Your task to perform on an android device: check google app version Image 0: 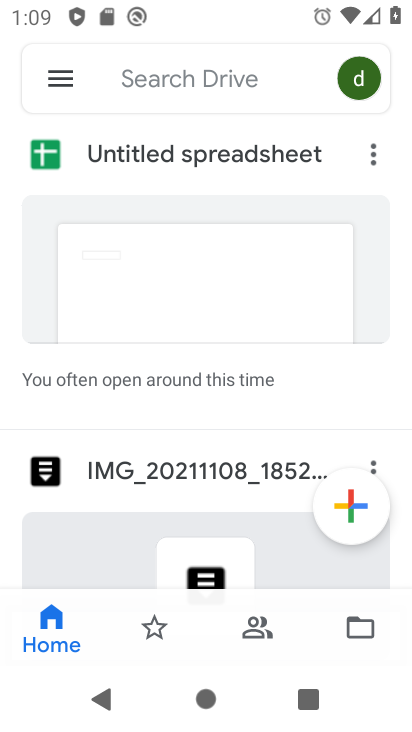
Step 0: press home button
Your task to perform on an android device: check google app version Image 1: 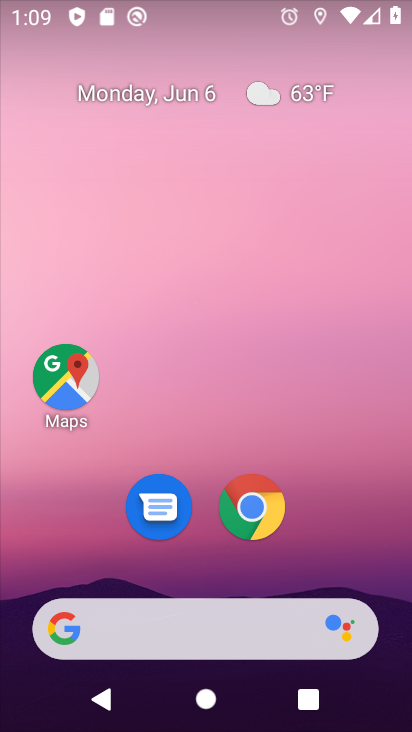
Step 1: click (249, 636)
Your task to perform on an android device: check google app version Image 2: 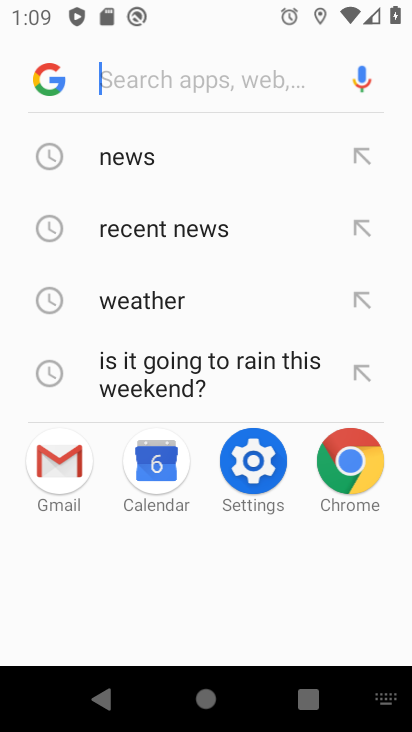
Step 2: click (44, 81)
Your task to perform on an android device: check google app version Image 3: 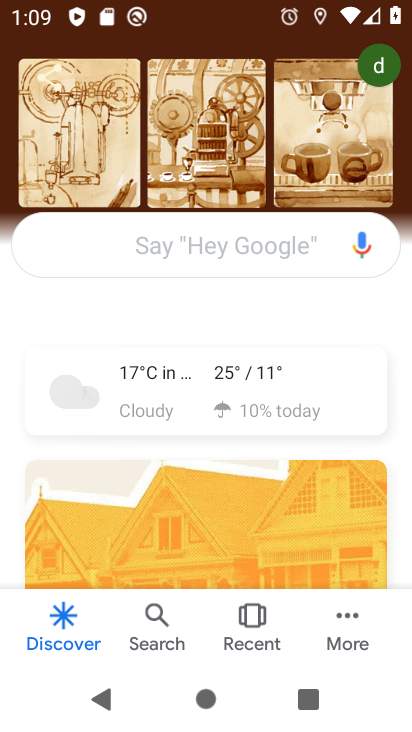
Step 3: click (339, 623)
Your task to perform on an android device: check google app version Image 4: 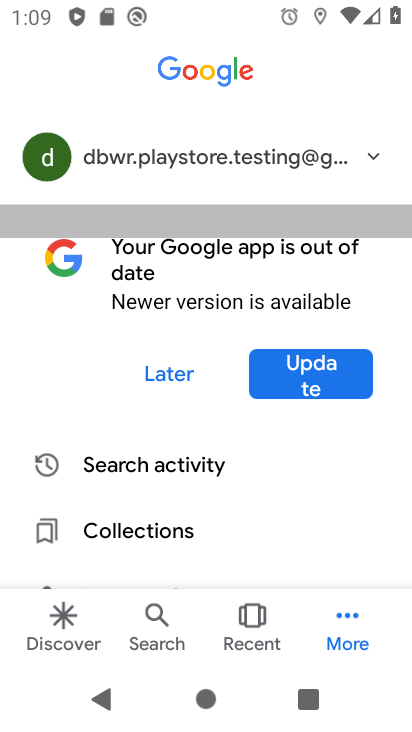
Step 4: drag from (252, 525) to (185, 127)
Your task to perform on an android device: check google app version Image 5: 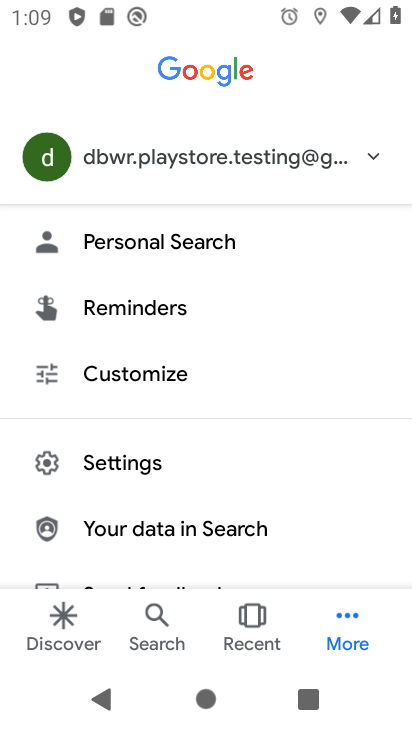
Step 5: click (154, 454)
Your task to perform on an android device: check google app version Image 6: 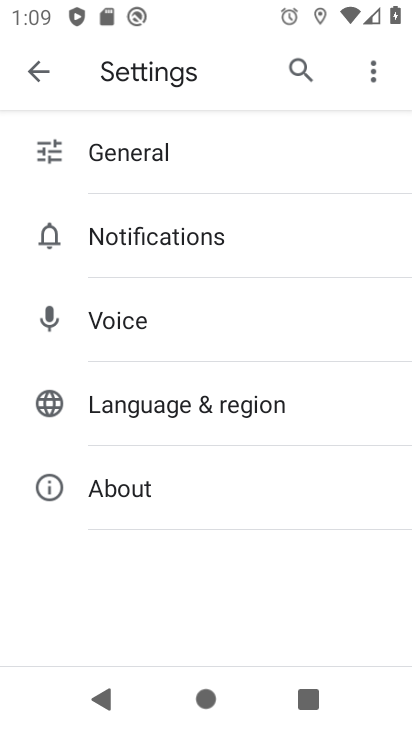
Step 6: click (149, 484)
Your task to perform on an android device: check google app version Image 7: 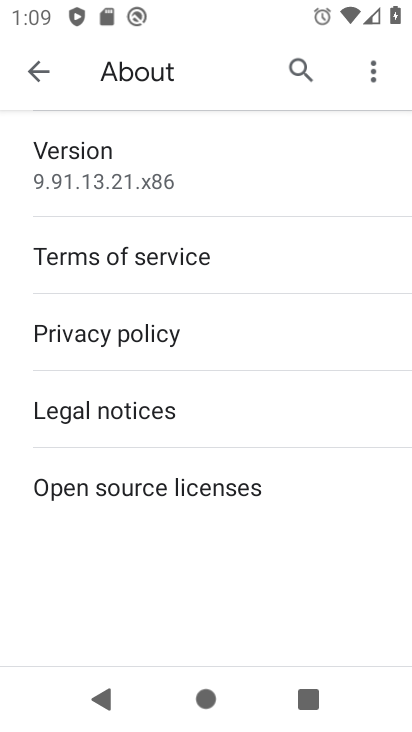
Step 7: task complete